Your task to perform on an android device: Go to Android settings Image 0: 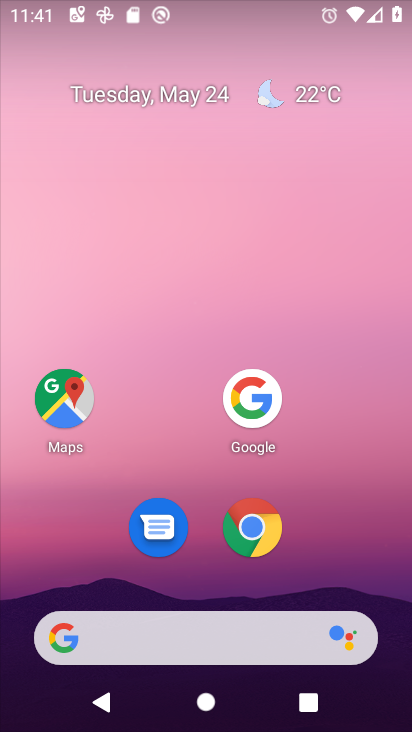
Step 0: press home button
Your task to perform on an android device: Go to Android settings Image 1: 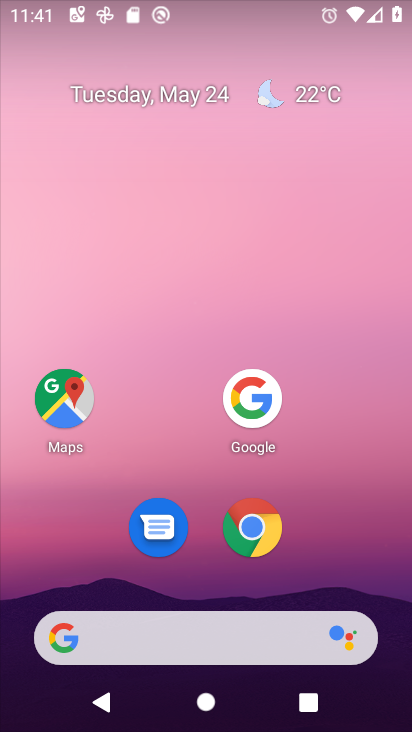
Step 1: drag from (156, 655) to (399, 198)
Your task to perform on an android device: Go to Android settings Image 2: 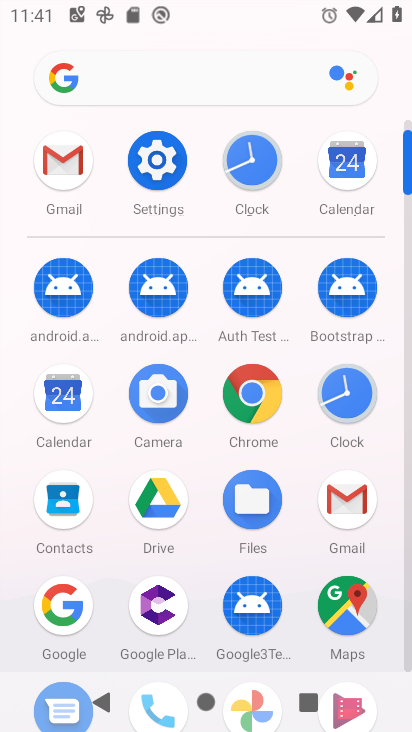
Step 2: click (170, 163)
Your task to perform on an android device: Go to Android settings Image 3: 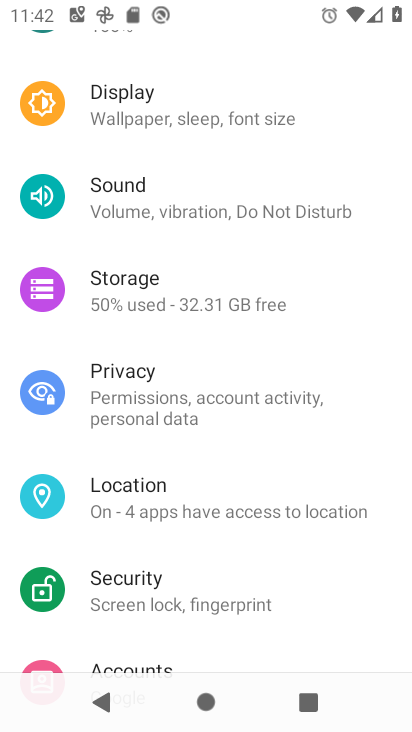
Step 3: task complete